Your task to perform on an android device: Open the web browser Image 0: 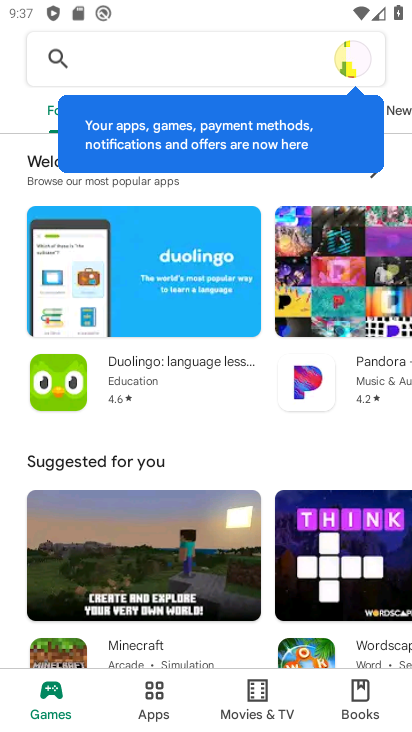
Step 0: press home button
Your task to perform on an android device: Open the web browser Image 1: 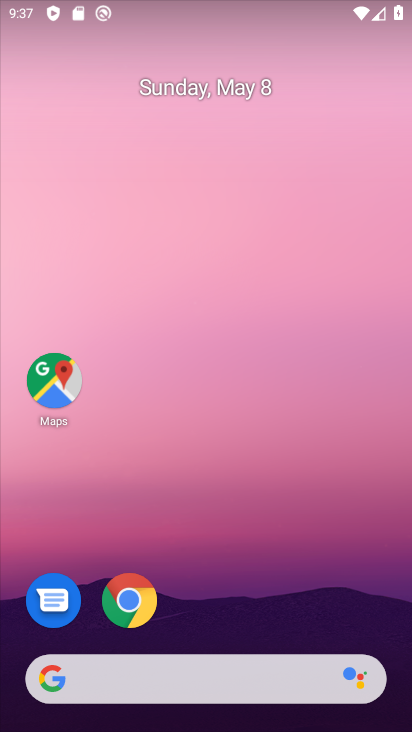
Step 1: click (131, 605)
Your task to perform on an android device: Open the web browser Image 2: 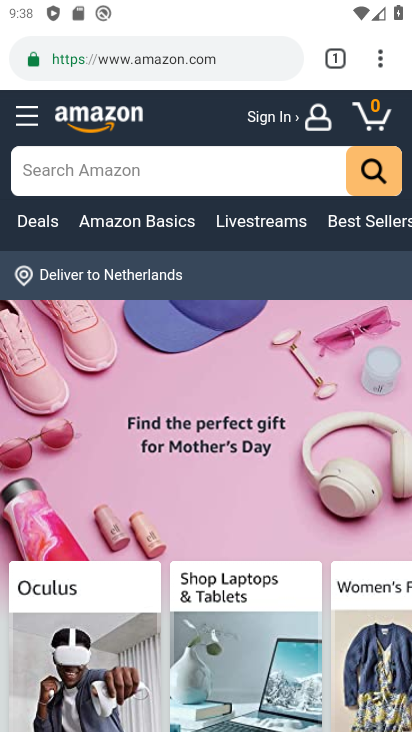
Step 2: task complete